Your task to perform on an android device: turn on sleep mode Image 0: 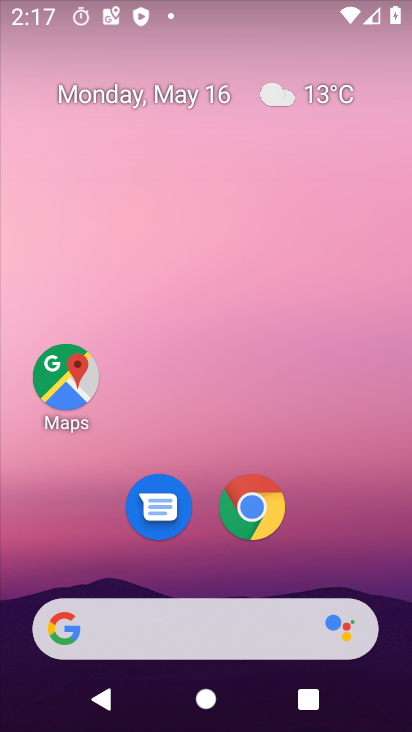
Step 0: drag from (342, 553) to (337, 126)
Your task to perform on an android device: turn on sleep mode Image 1: 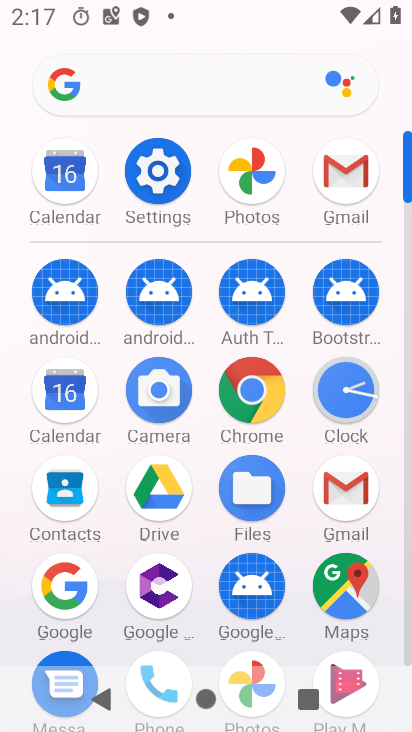
Step 1: click (177, 176)
Your task to perform on an android device: turn on sleep mode Image 2: 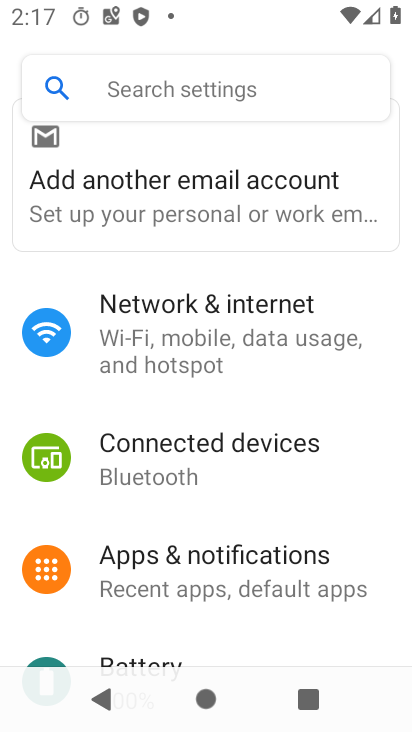
Step 2: drag from (376, 628) to (385, 485)
Your task to perform on an android device: turn on sleep mode Image 3: 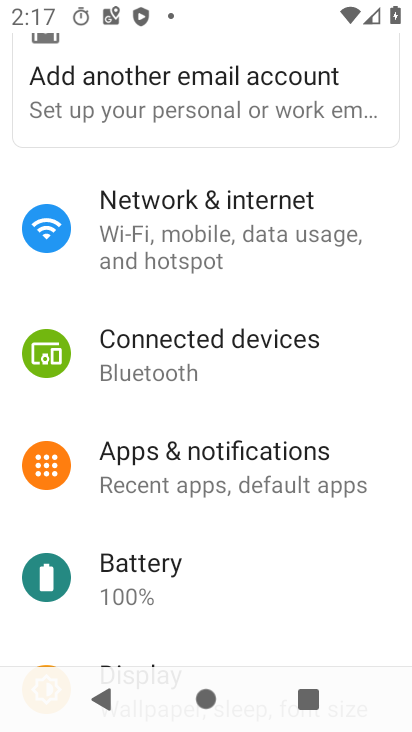
Step 3: drag from (364, 625) to (363, 456)
Your task to perform on an android device: turn on sleep mode Image 4: 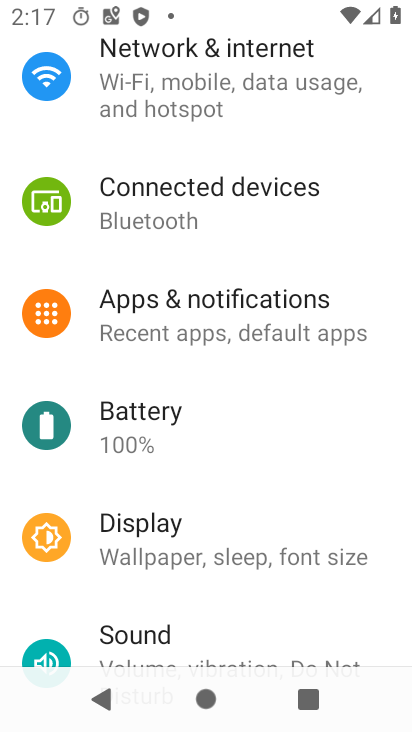
Step 4: drag from (342, 609) to (351, 453)
Your task to perform on an android device: turn on sleep mode Image 5: 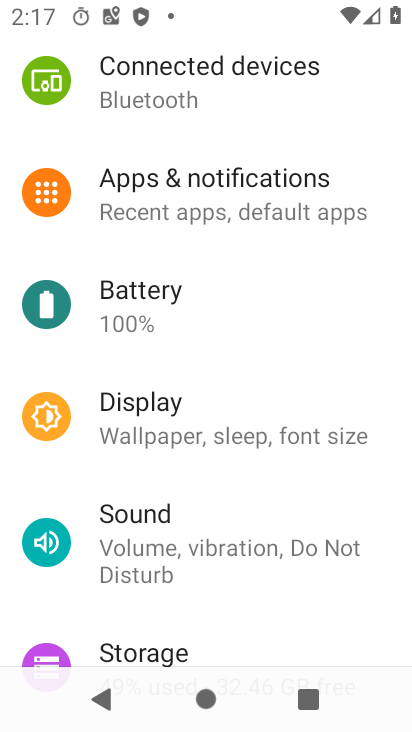
Step 5: drag from (353, 634) to (362, 451)
Your task to perform on an android device: turn on sleep mode Image 6: 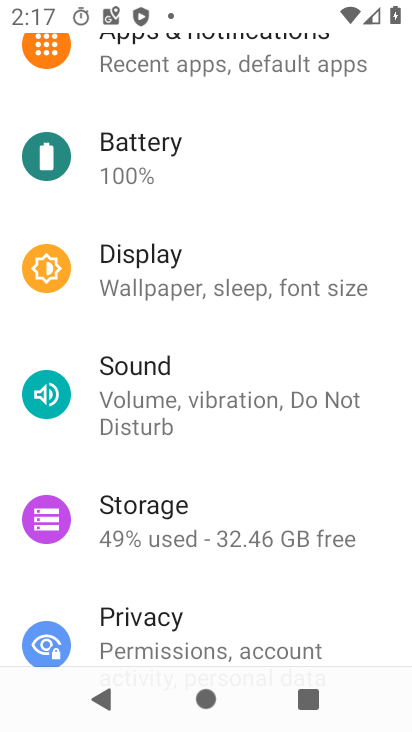
Step 6: drag from (357, 625) to (355, 455)
Your task to perform on an android device: turn on sleep mode Image 7: 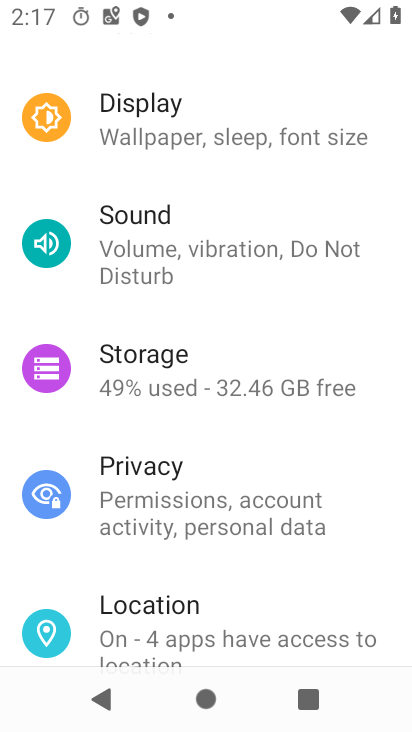
Step 7: drag from (349, 607) to (347, 443)
Your task to perform on an android device: turn on sleep mode Image 8: 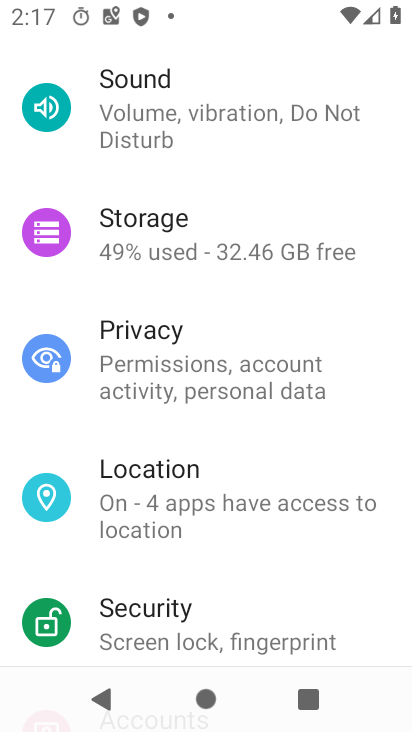
Step 8: drag from (370, 648) to (377, 458)
Your task to perform on an android device: turn on sleep mode Image 9: 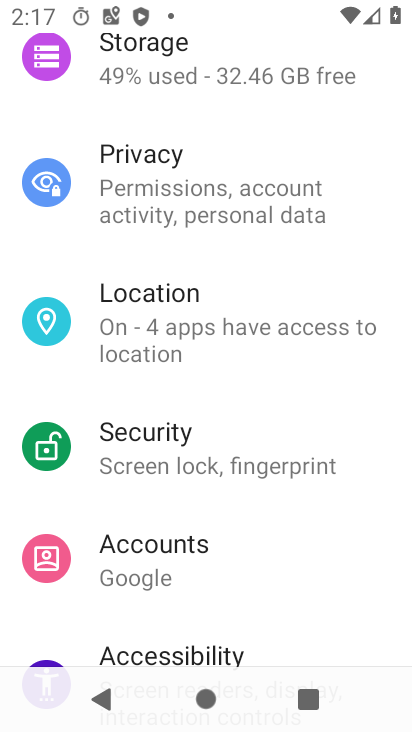
Step 9: drag from (357, 631) to (359, 468)
Your task to perform on an android device: turn on sleep mode Image 10: 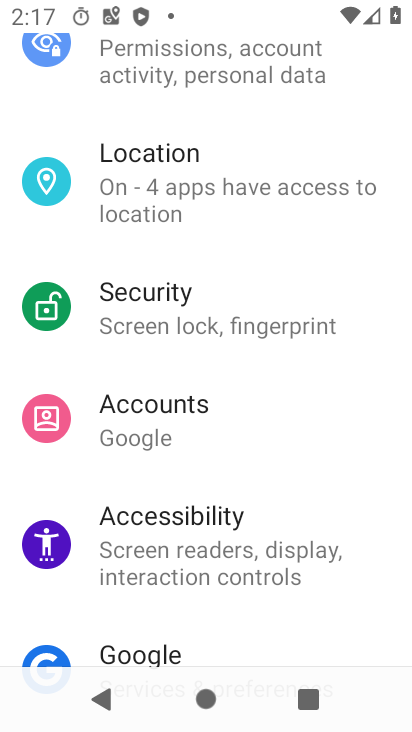
Step 10: drag from (376, 287) to (363, 413)
Your task to perform on an android device: turn on sleep mode Image 11: 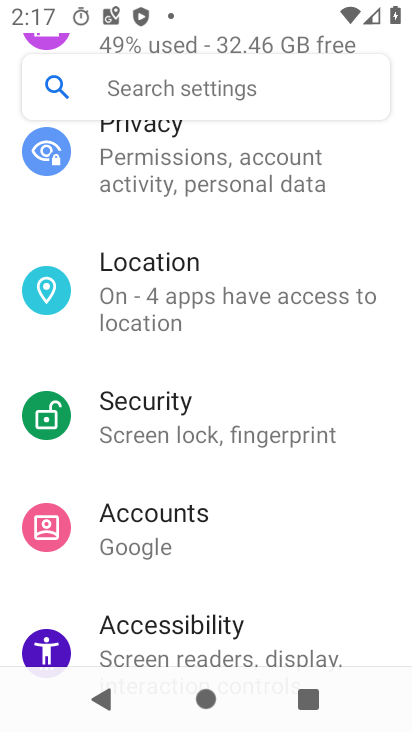
Step 11: drag from (359, 207) to (353, 353)
Your task to perform on an android device: turn on sleep mode Image 12: 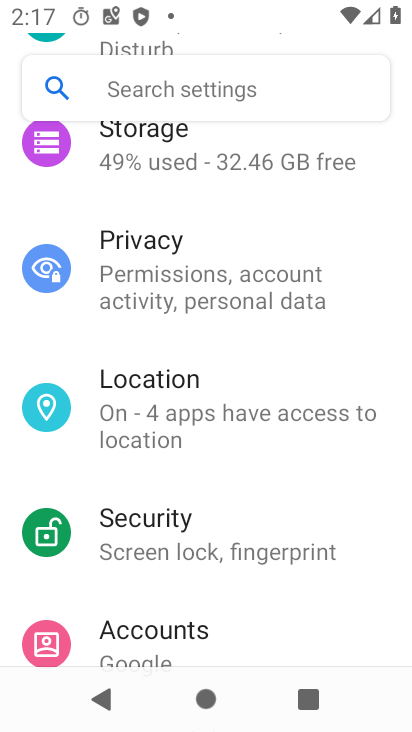
Step 12: drag from (362, 212) to (360, 403)
Your task to perform on an android device: turn on sleep mode Image 13: 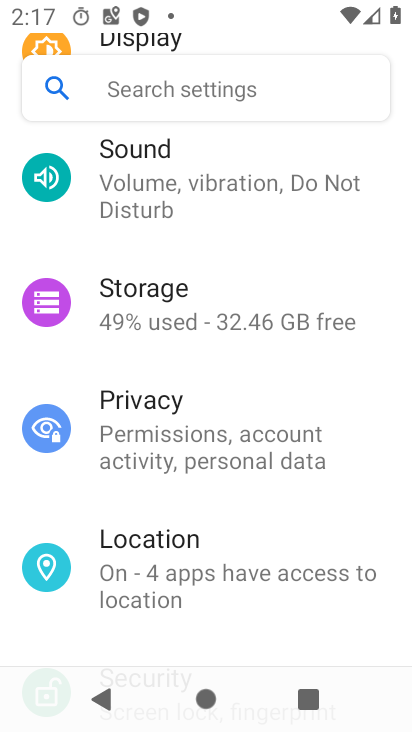
Step 13: drag from (379, 222) to (379, 448)
Your task to perform on an android device: turn on sleep mode Image 14: 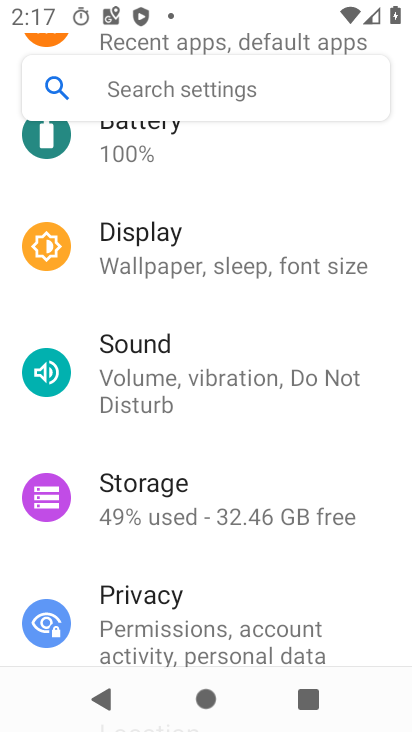
Step 14: click (323, 259)
Your task to perform on an android device: turn on sleep mode Image 15: 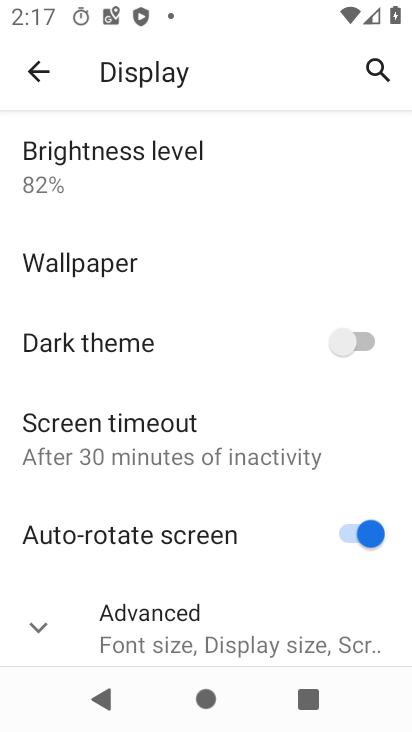
Step 15: click (244, 633)
Your task to perform on an android device: turn on sleep mode Image 16: 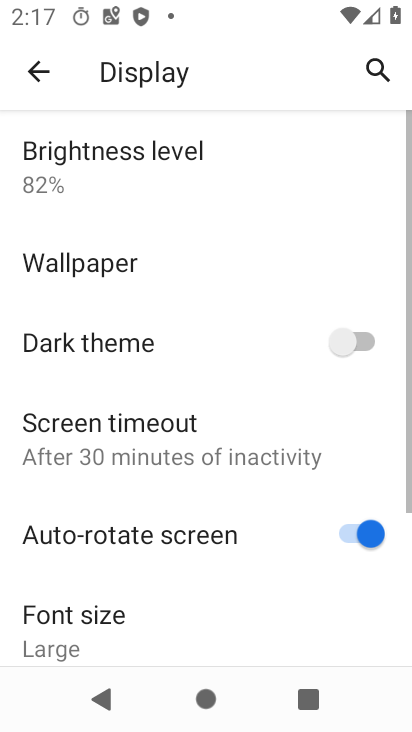
Step 16: task complete